Your task to perform on an android device: turn on wifi Image 0: 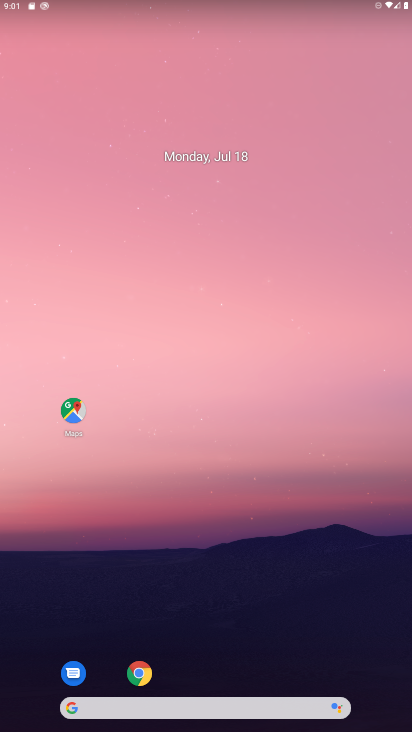
Step 0: press home button
Your task to perform on an android device: turn on wifi Image 1: 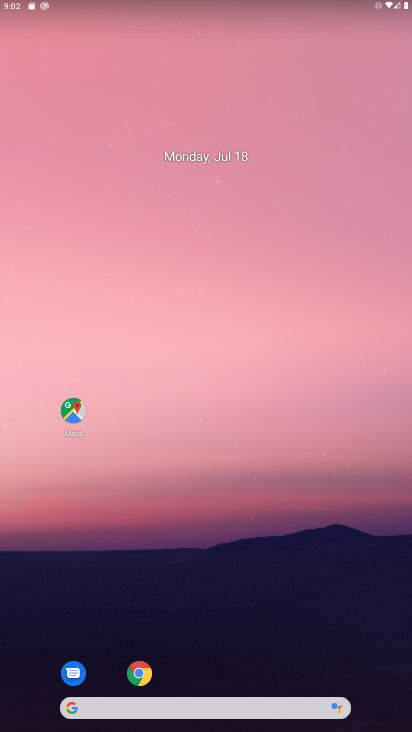
Step 1: task complete